Your task to perform on an android device: check out phone information Image 0: 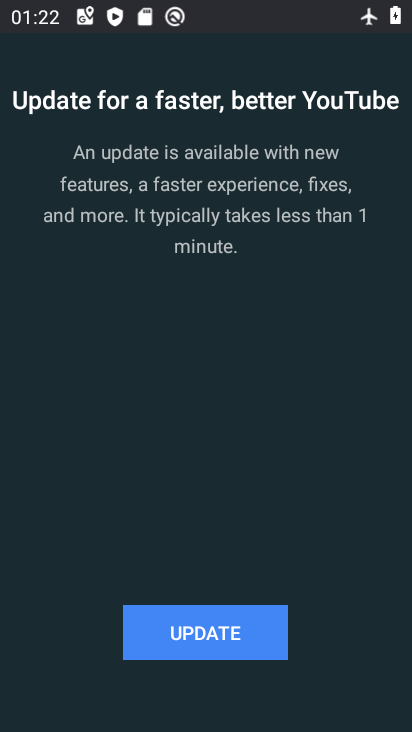
Step 0: press back button
Your task to perform on an android device: check out phone information Image 1: 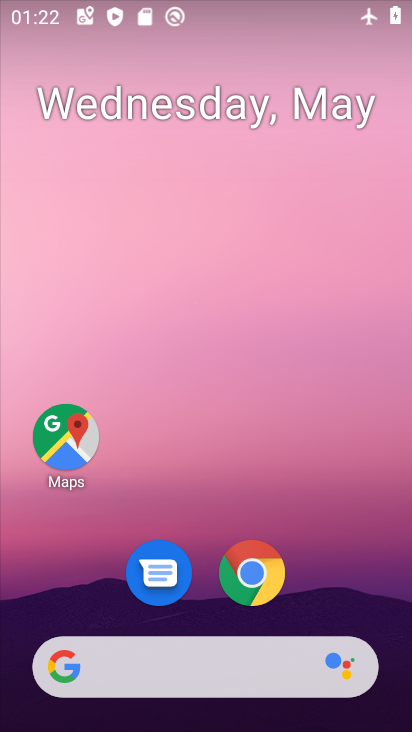
Step 1: click (280, 170)
Your task to perform on an android device: check out phone information Image 2: 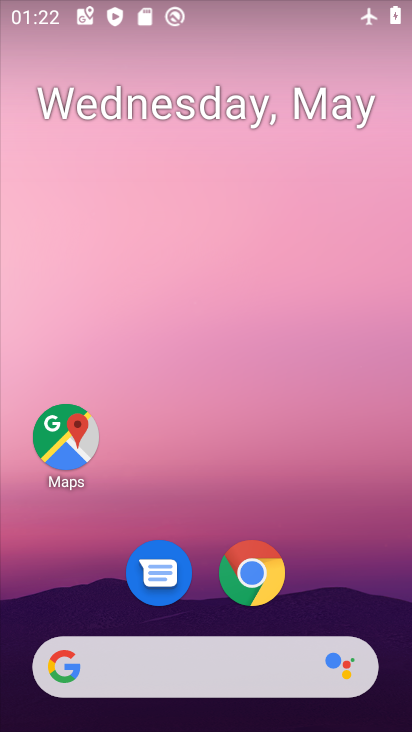
Step 2: drag from (227, 461) to (223, 271)
Your task to perform on an android device: check out phone information Image 3: 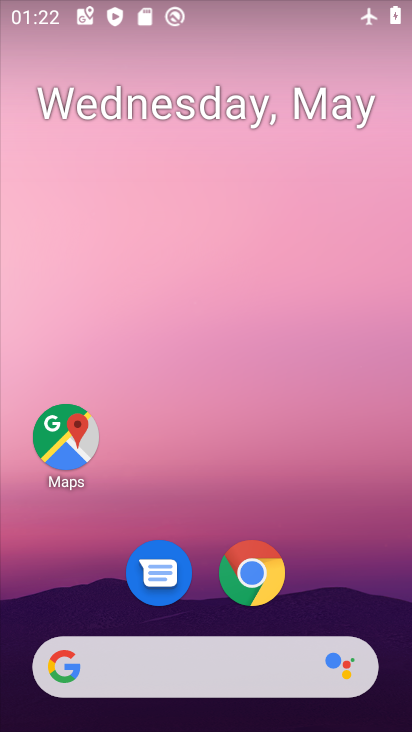
Step 3: drag from (231, 617) to (247, 108)
Your task to perform on an android device: check out phone information Image 4: 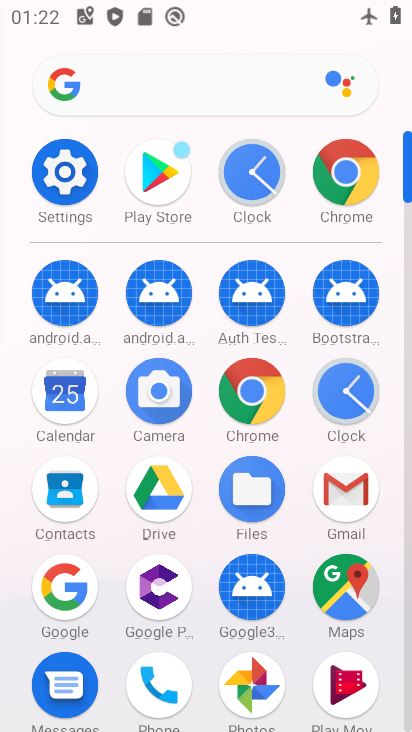
Step 4: click (73, 170)
Your task to perform on an android device: check out phone information Image 5: 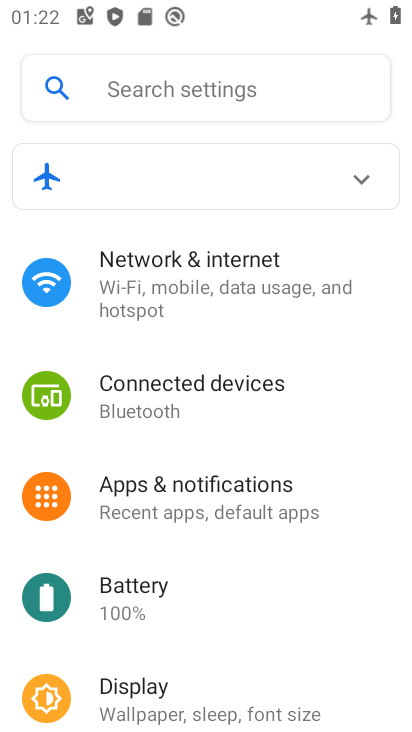
Step 5: drag from (233, 673) to (264, 160)
Your task to perform on an android device: check out phone information Image 6: 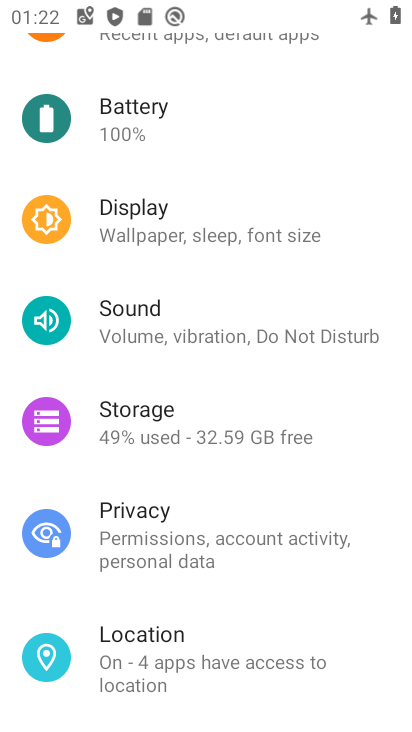
Step 6: drag from (305, 589) to (244, 118)
Your task to perform on an android device: check out phone information Image 7: 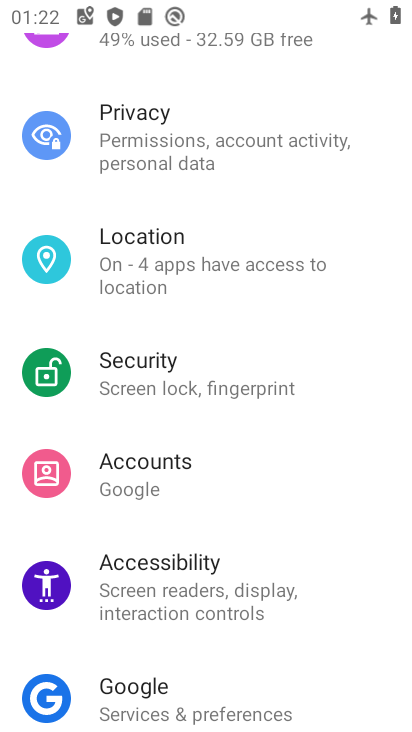
Step 7: drag from (253, 576) to (231, 178)
Your task to perform on an android device: check out phone information Image 8: 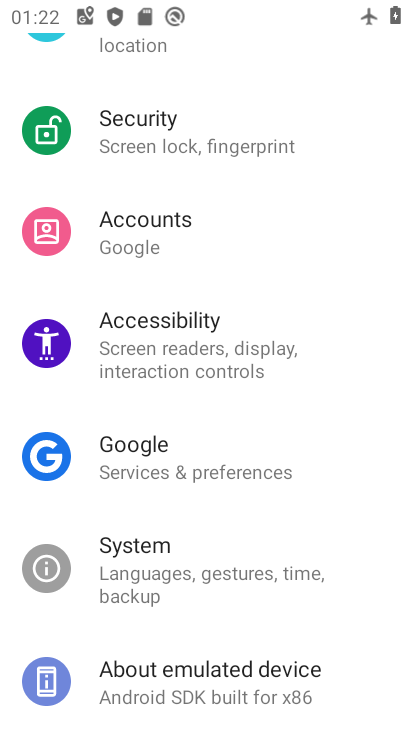
Step 8: click (193, 690)
Your task to perform on an android device: check out phone information Image 9: 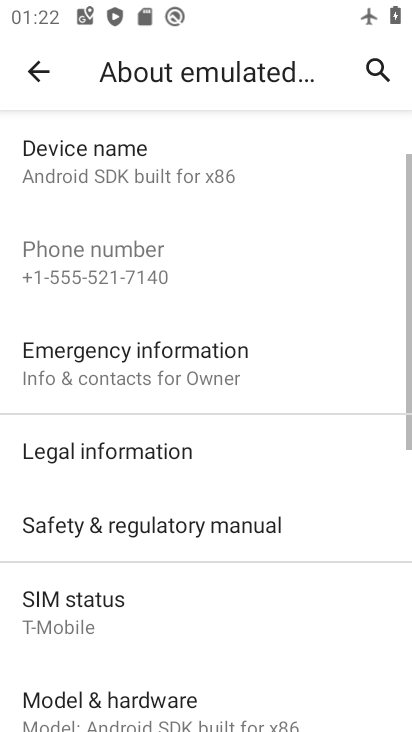
Step 9: task complete